Your task to perform on an android device: uninstall "Paramount+ | Peak Streaming" Image 0: 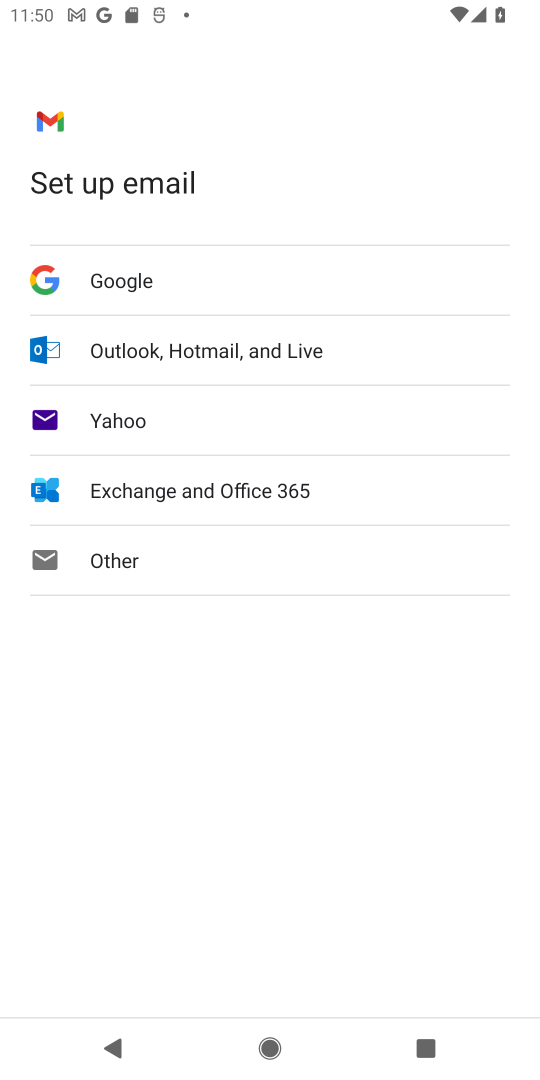
Step 0: press home button
Your task to perform on an android device: uninstall "Paramount+ | Peak Streaming" Image 1: 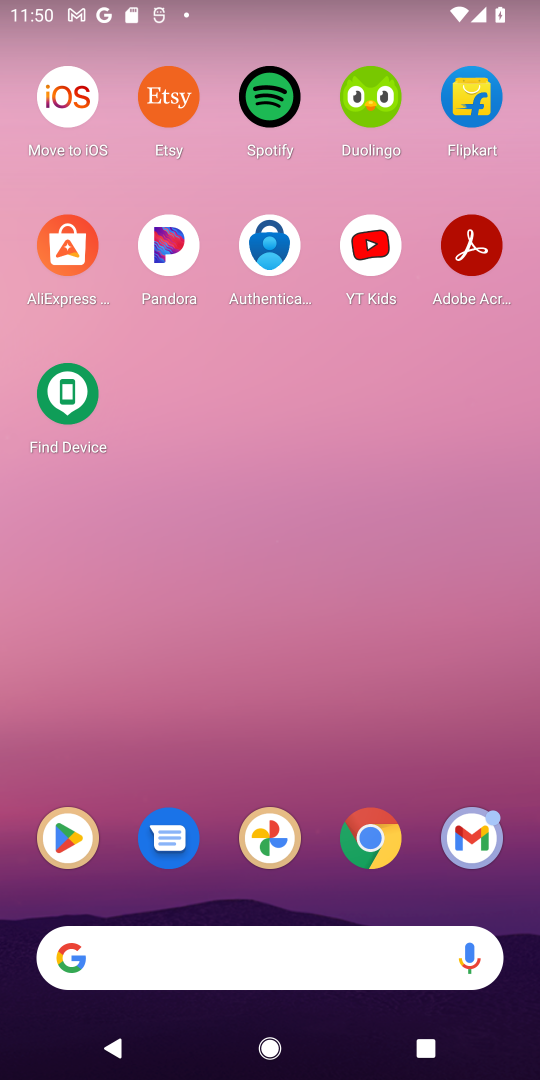
Step 1: click (90, 842)
Your task to perform on an android device: uninstall "Paramount+ | Peak Streaming" Image 2: 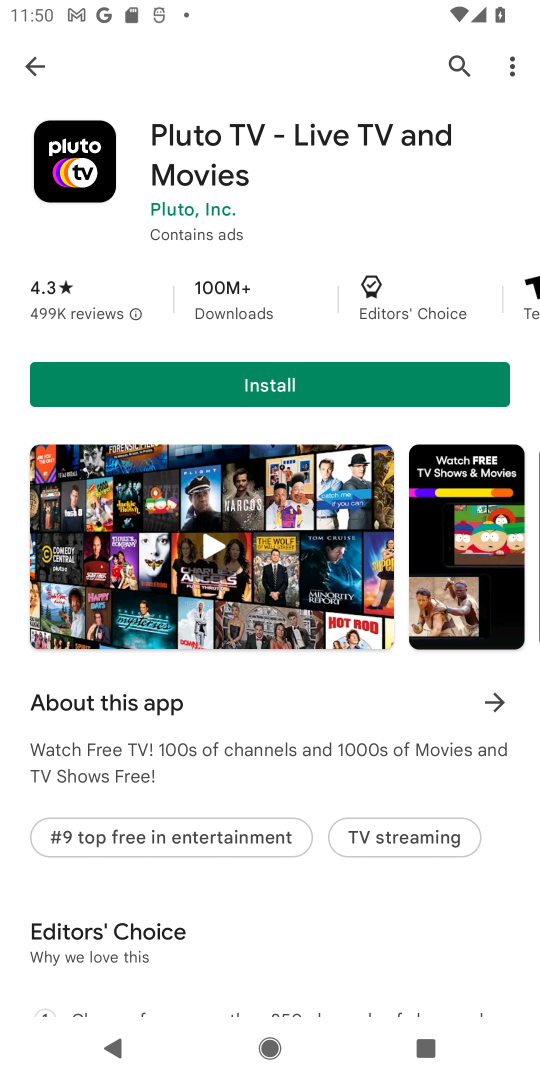
Step 2: click (458, 63)
Your task to perform on an android device: uninstall "Paramount+ | Peak Streaming" Image 3: 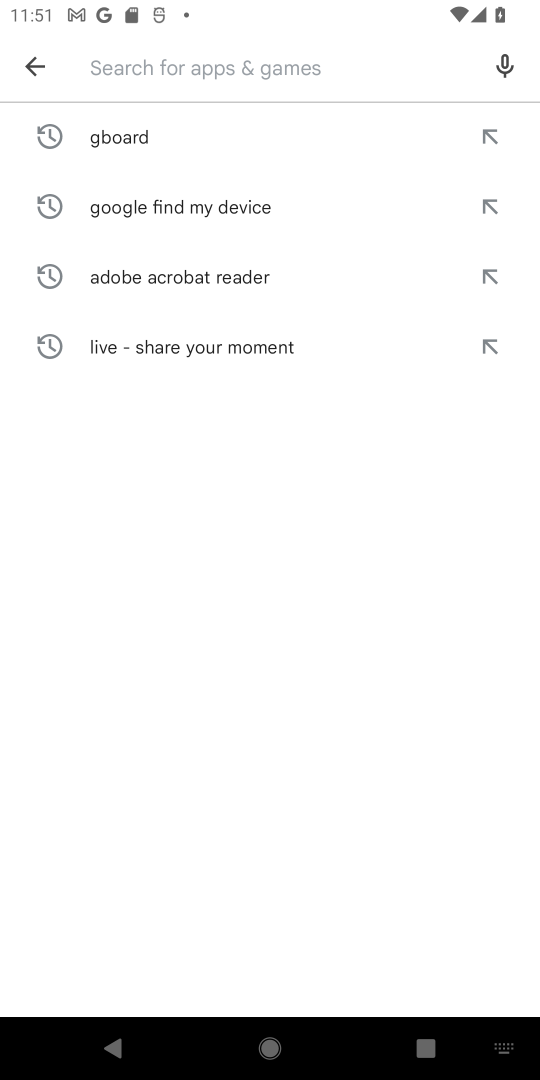
Step 3: type "Paramount+ | Peak Streaming"
Your task to perform on an android device: uninstall "Paramount+ | Peak Streaming" Image 4: 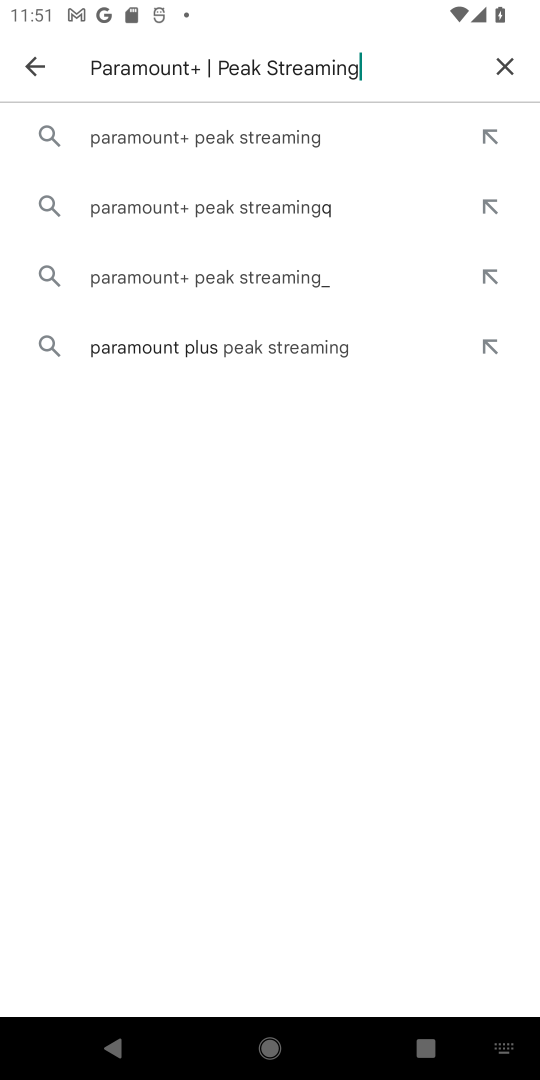
Step 4: click (271, 132)
Your task to perform on an android device: uninstall "Paramount+ | Peak Streaming" Image 5: 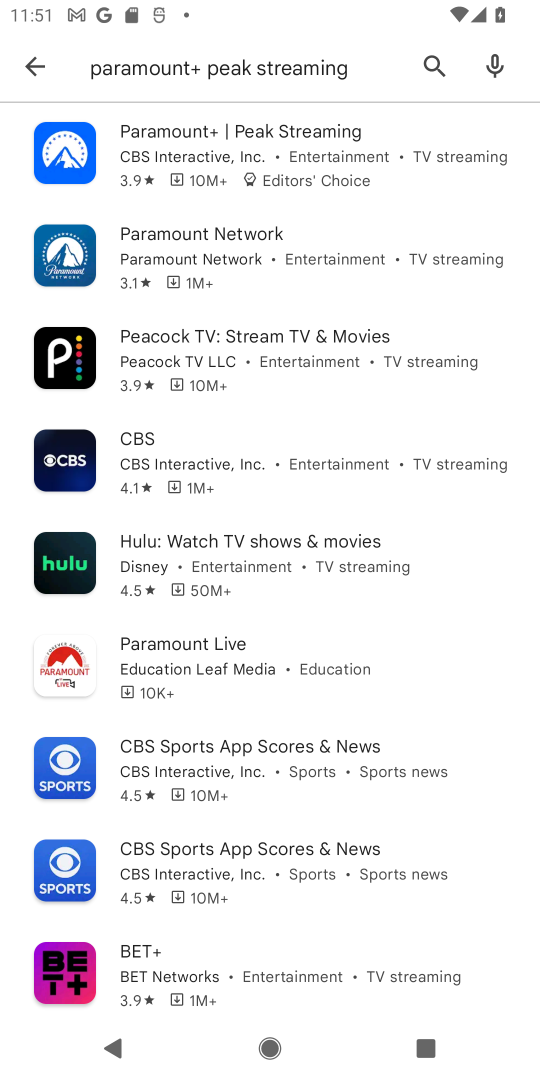
Step 5: click (210, 136)
Your task to perform on an android device: uninstall "Paramount+ | Peak Streaming" Image 6: 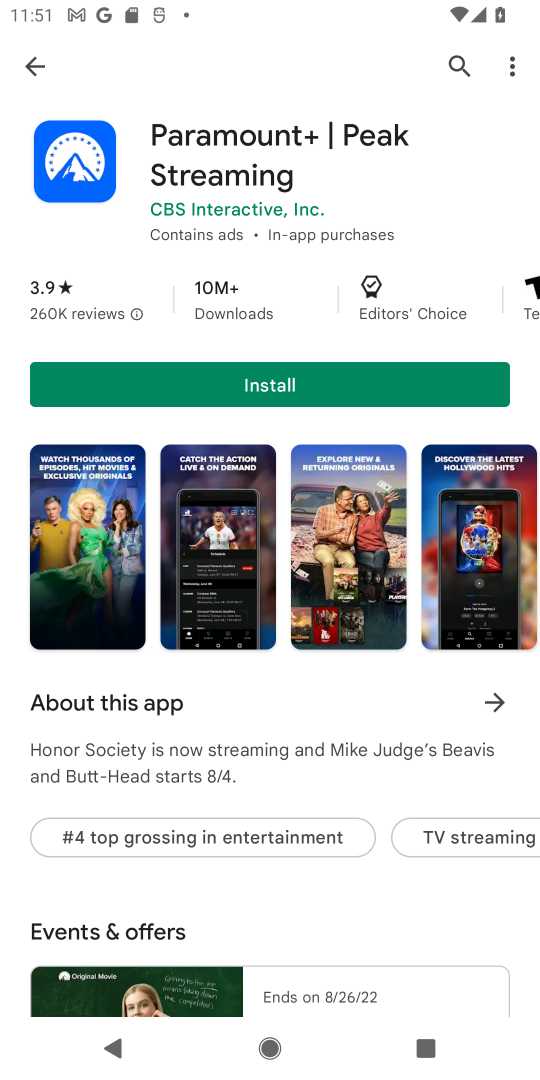
Step 6: task complete